Your task to perform on an android device: toggle airplane mode Image 0: 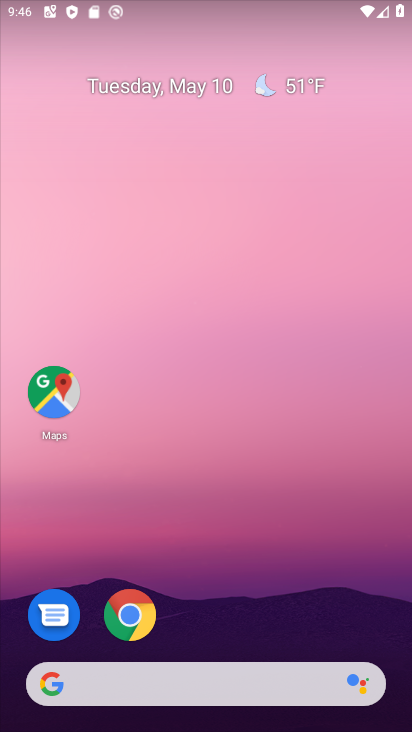
Step 0: drag from (279, 588) to (265, 103)
Your task to perform on an android device: toggle airplane mode Image 1: 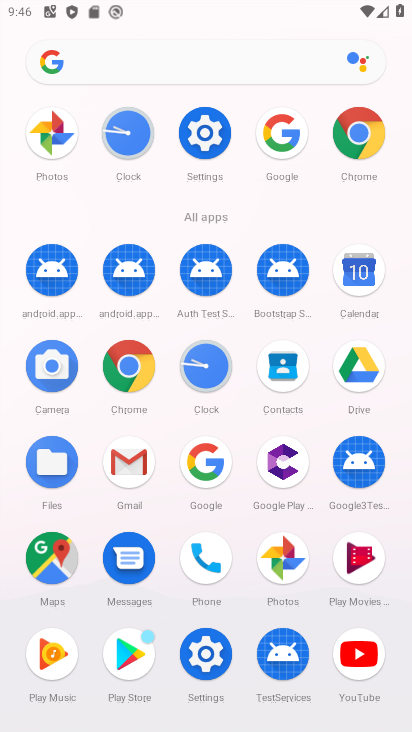
Step 1: click (212, 118)
Your task to perform on an android device: toggle airplane mode Image 2: 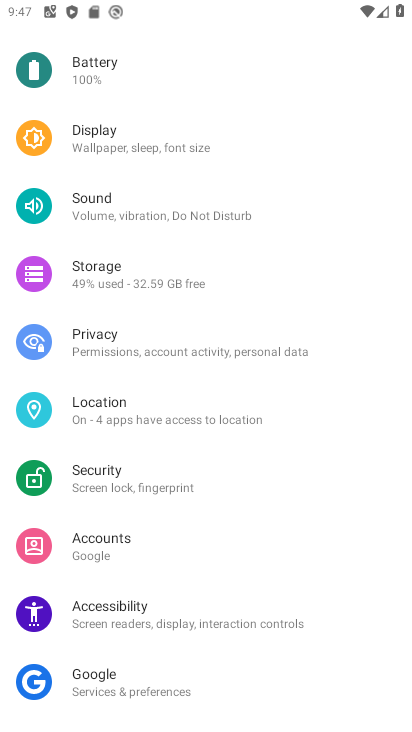
Step 2: drag from (236, 130) to (236, 565)
Your task to perform on an android device: toggle airplane mode Image 3: 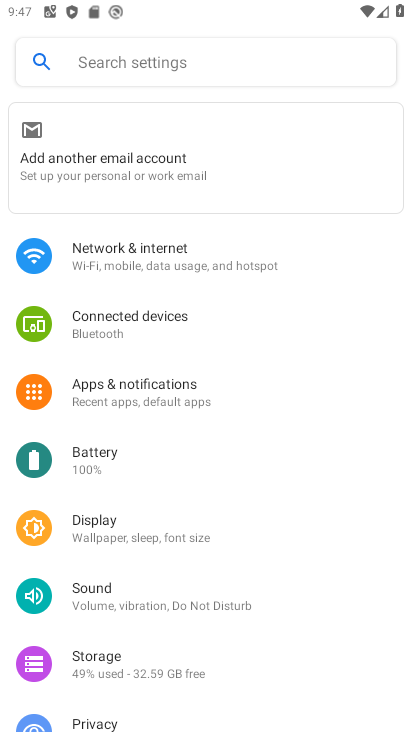
Step 3: click (198, 260)
Your task to perform on an android device: toggle airplane mode Image 4: 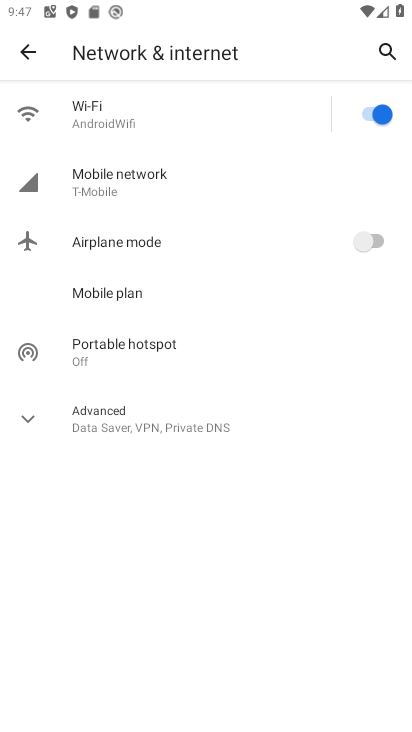
Step 4: click (366, 242)
Your task to perform on an android device: toggle airplane mode Image 5: 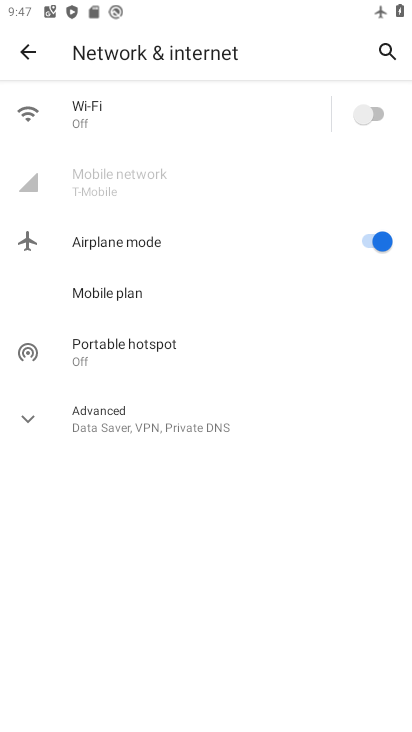
Step 5: task complete